Your task to perform on an android device: What is the capital of Norway? Image 0: 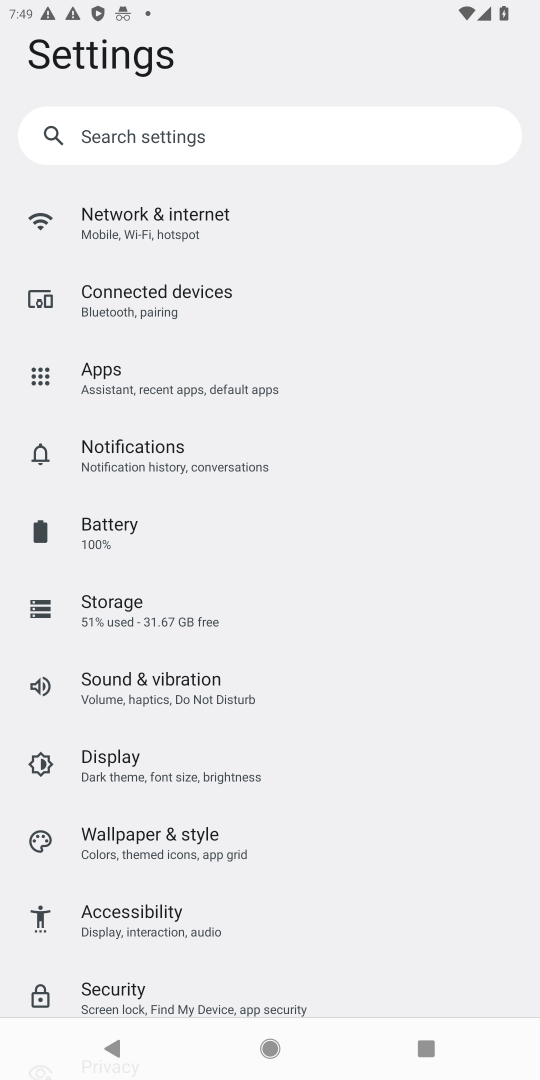
Step 0: press home button
Your task to perform on an android device: What is the capital of Norway? Image 1: 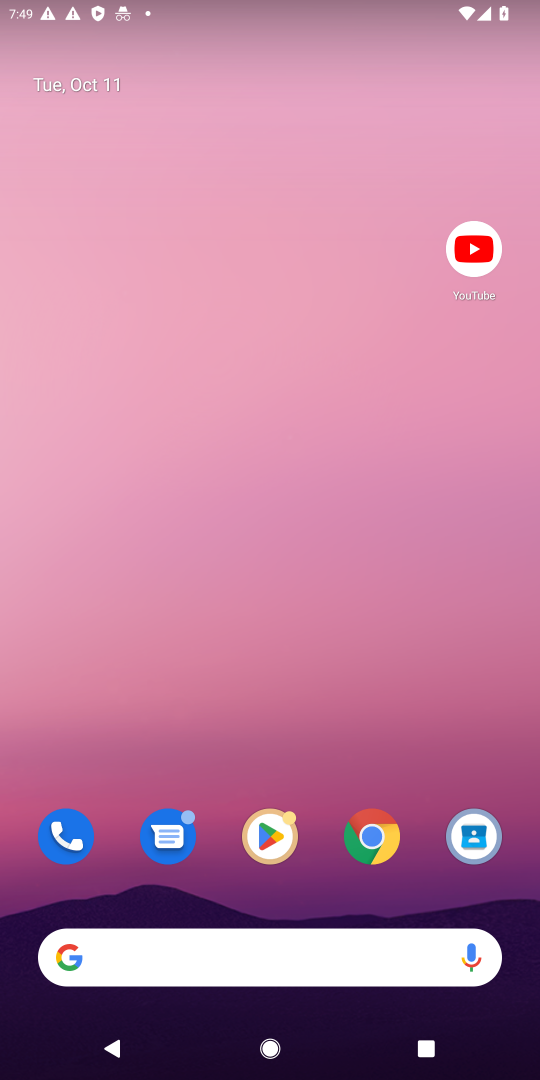
Step 1: click (378, 829)
Your task to perform on an android device: What is the capital of Norway? Image 2: 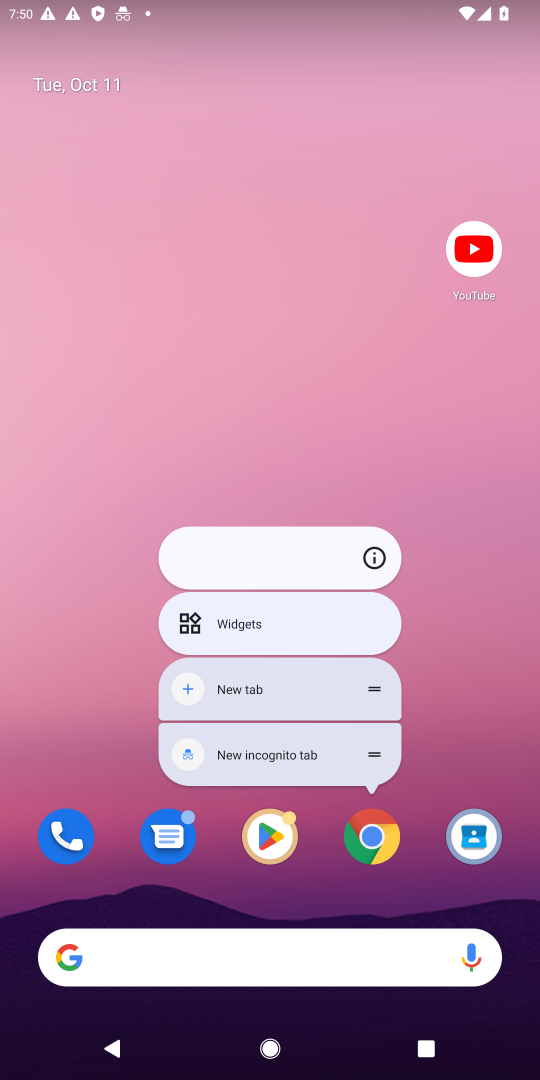
Step 2: click (378, 830)
Your task to perform on an android device: What is the capital of Norway? Image 3: 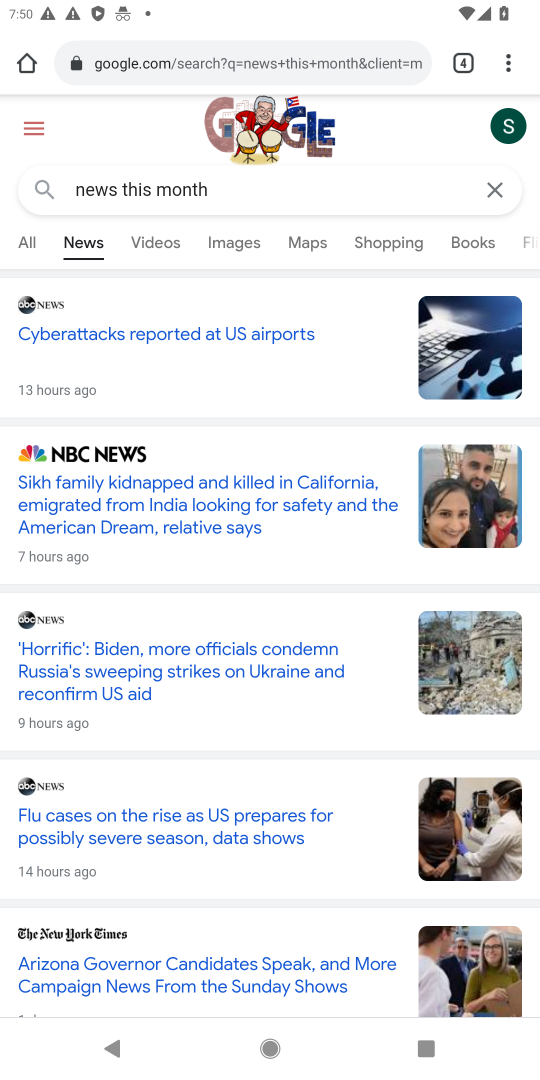
Step 3: click (310, 58)
Your task to perform on an android device: What is the capital of Norway? Image 4: 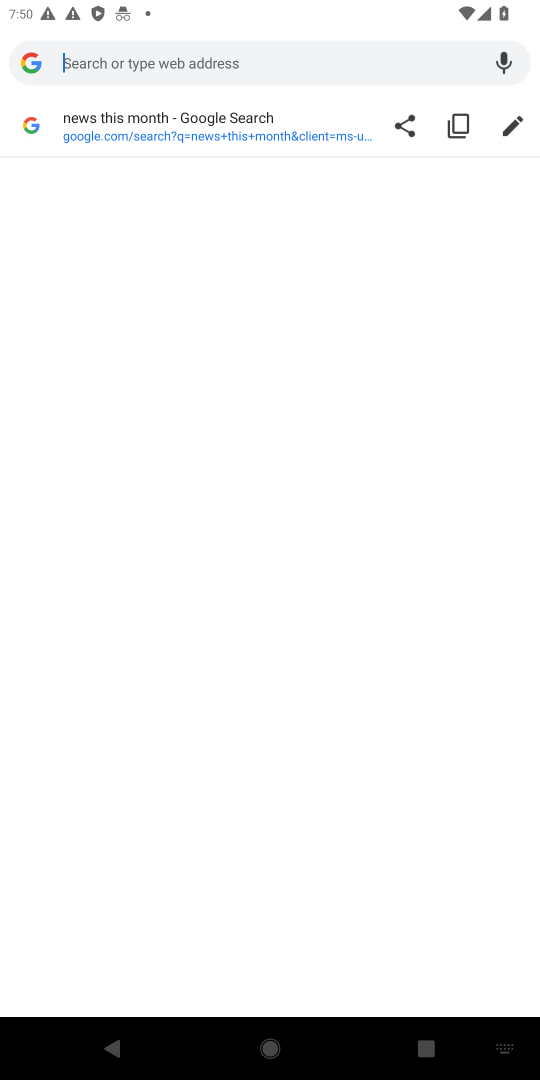
Step 4: type " capital of Norway"
Your task to perform on an android device: What is the capital of Norway? Image 5: 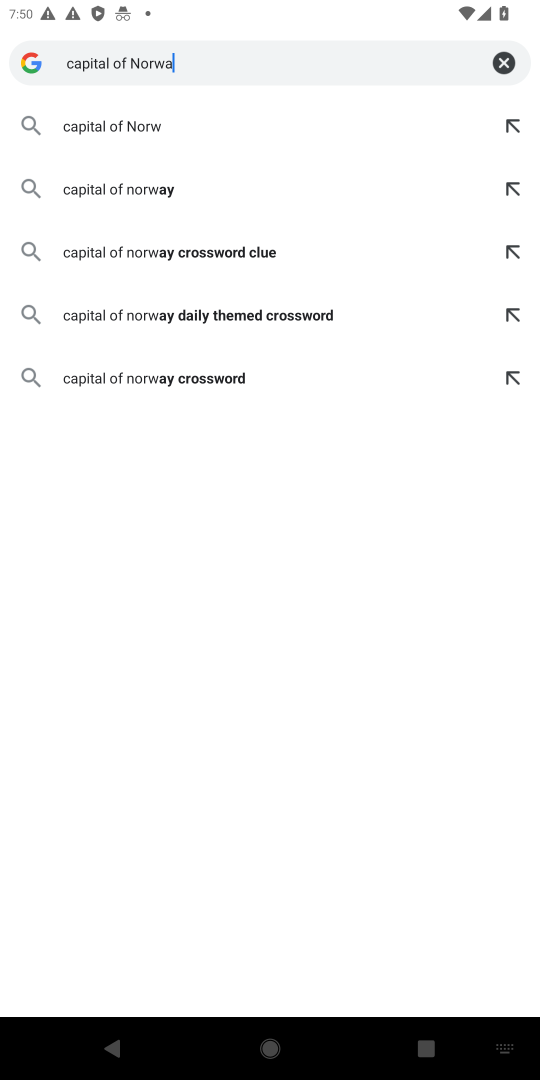
Step 5: press enter
Your task to perform on an android device: What is the capital of Norway? Image 6: 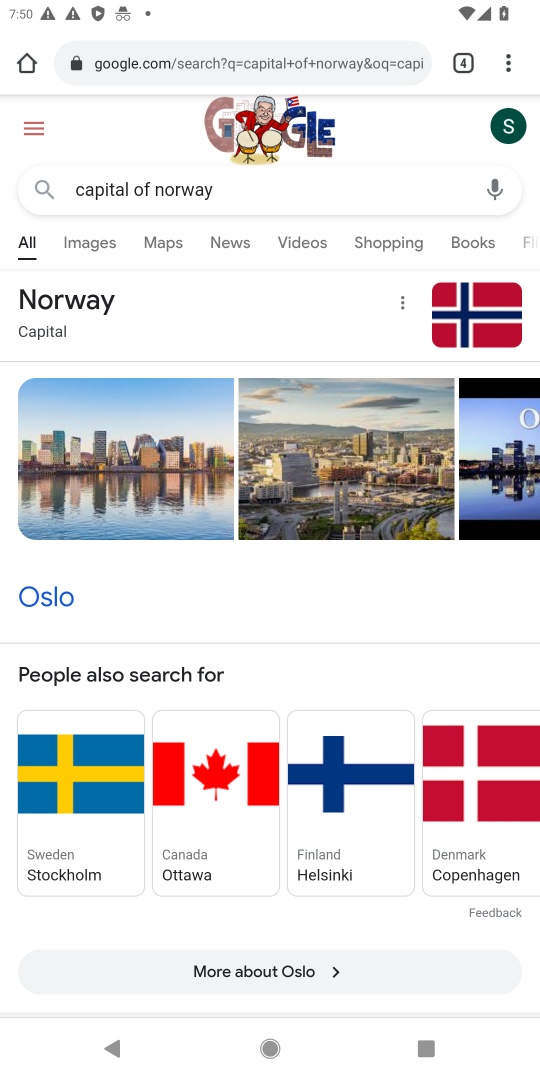
Step 6: task complete